Your task to perform on an android device: Open maps Image 0: 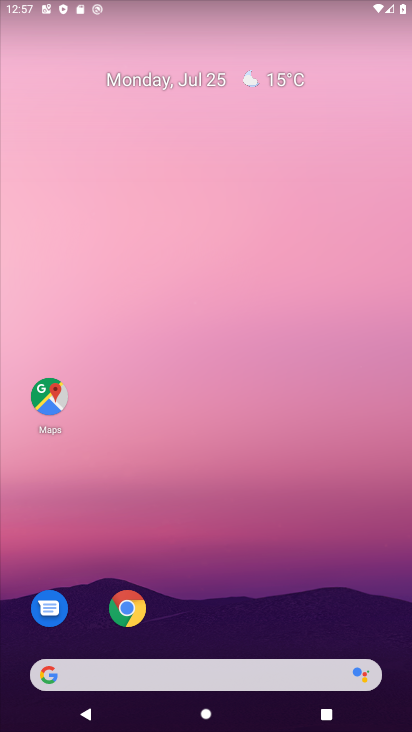
Step 0: drag from (252, 593) to (308, 93)
Your task to perform on an android device: Open maps Image 1: 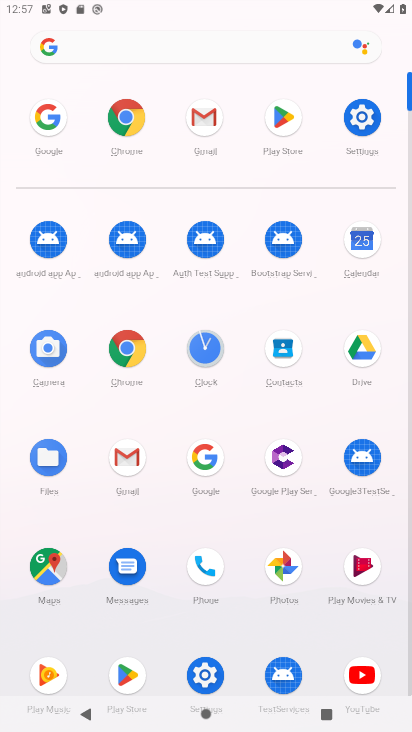
Step 1: click (50, 578)
Your task to perform on an android device: Open maps Image 2: 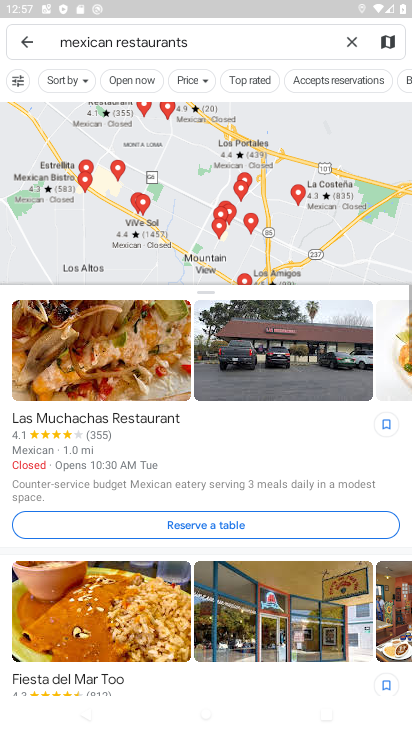
Step 2: task complete